Your task to perform on an android device: Go to sound settings Image 0: 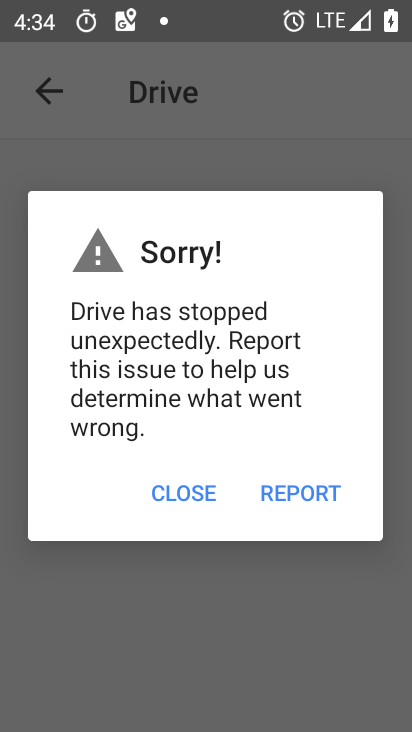
Step 0: click (184, 494)
Your task to perform on an android device: Go to sound settings Image 1: 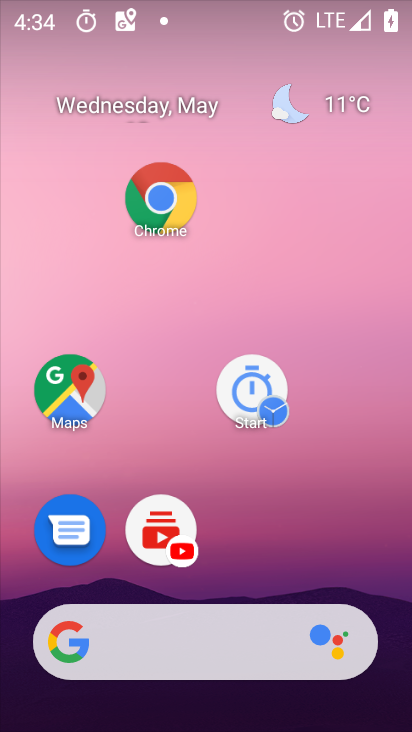
Step 1: drag from (267, 680) to (243, 274)
Your task to perform on an android device: Go to sound settings Image 2: 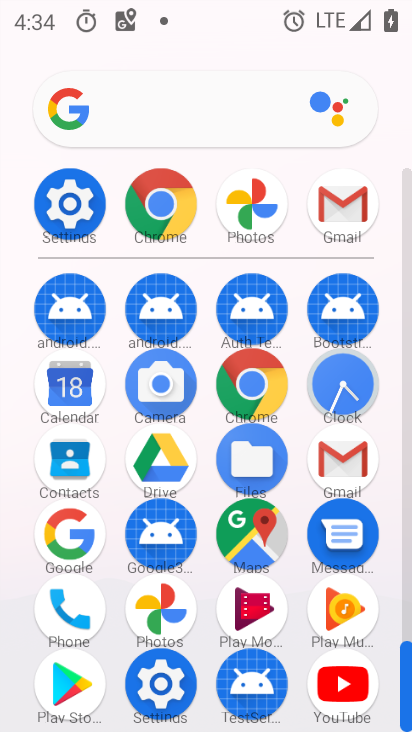
Step 2: click (73, 203)
Your task to perform on an android device: Go to sound settings Image 3: 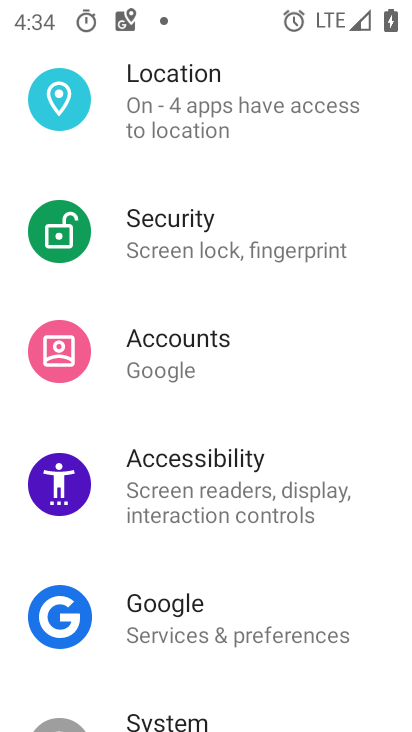
Step 3: drag from (202, 534) to (202, 152)
Your task to perform on an android device: Go to sound settings Image 4: 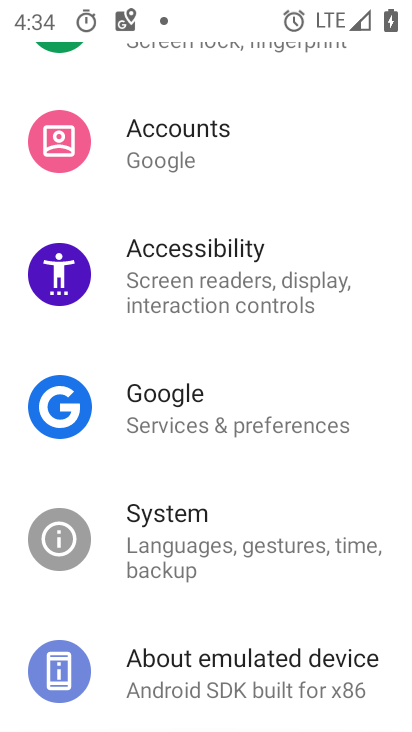
Step 4: drag from (227, 463) to (217, 123)
Your task to perform on an android device: Go to sound settings Image 5: 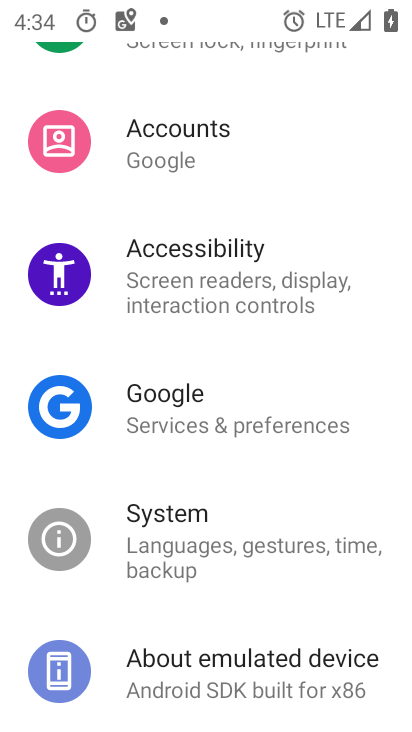
Step 5: drag from (216, 607) to (209, 368)
Your task to perform on an android device: Go to sound settings Image 6: 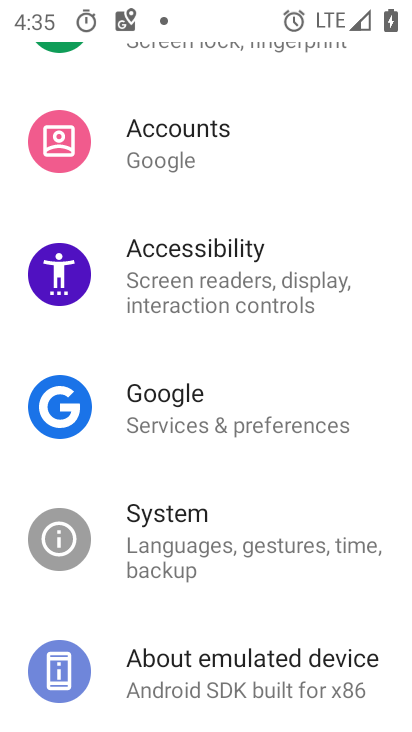
Step 6: drag from (202, 514) to (191, 263)
Your task to perform on an android device: Go to sound settings Image 7: 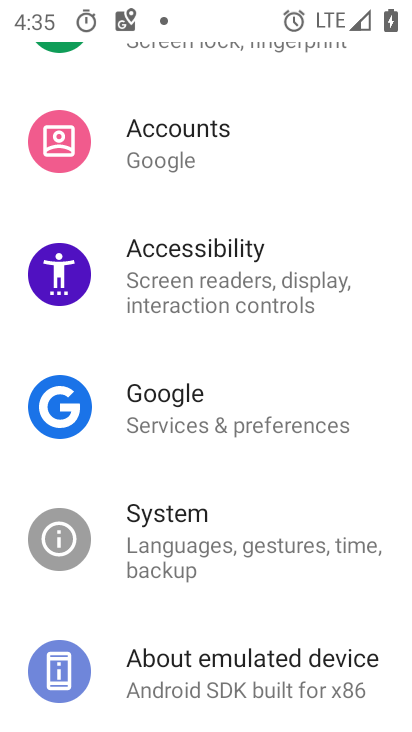
Step 7: drag from (216, 519) to (217, 293)
Your task to perform on an android device: Go to sound settings Image 8: 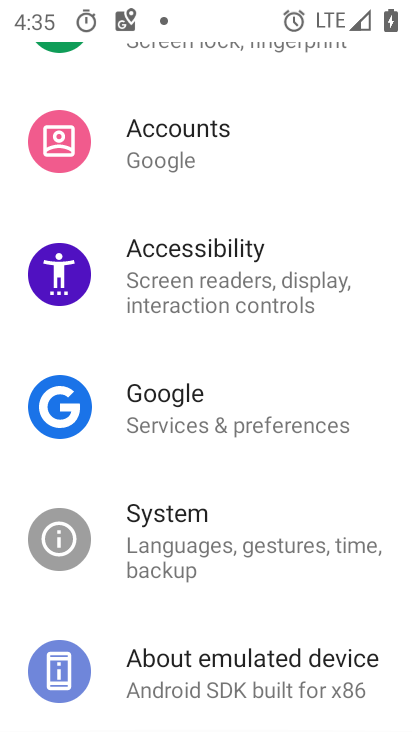
Step 8: drag from (199, 419) to (148, 87)
Your task to perform on an android device: Go to sound settings Image 9: 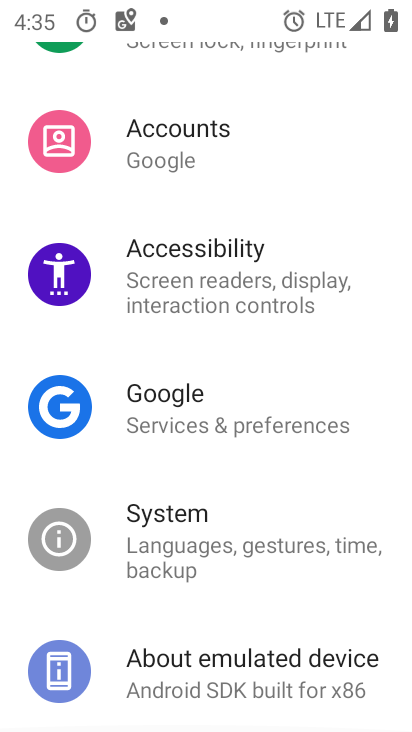
Step 9: drag from (182, 577) to (189, 132)
Your task to perform on an android device: Go to sound settings Image 10: 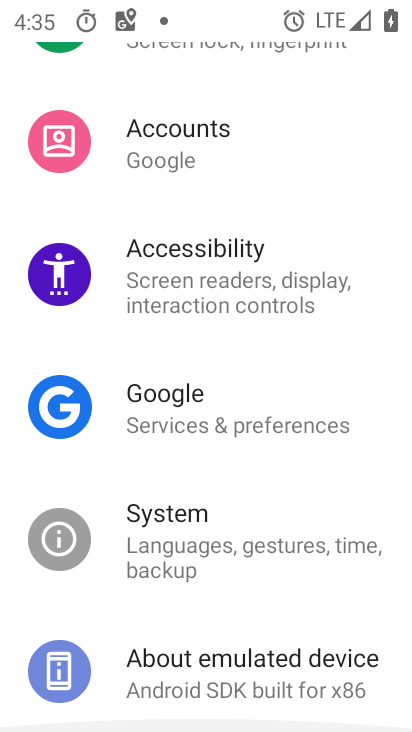
Step 10: drag from (204, 557) to (200, 190)
Your task to perform on an android device: Go to sound settings Image 11: 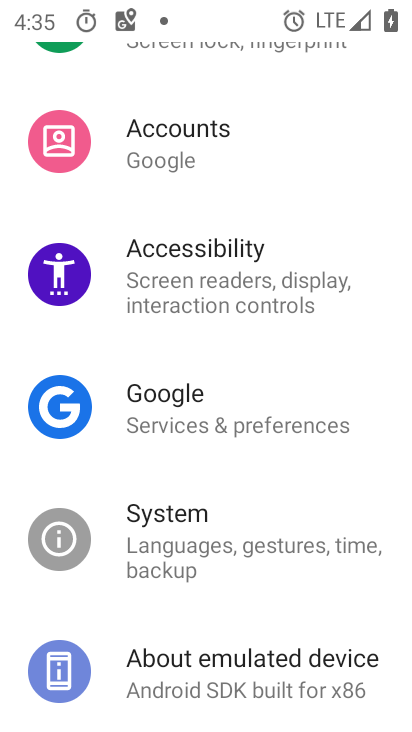
Step 11: drag from (154, 207) to (185, 683)
Your task to perform on an android device: Go to sound settings Image 12: 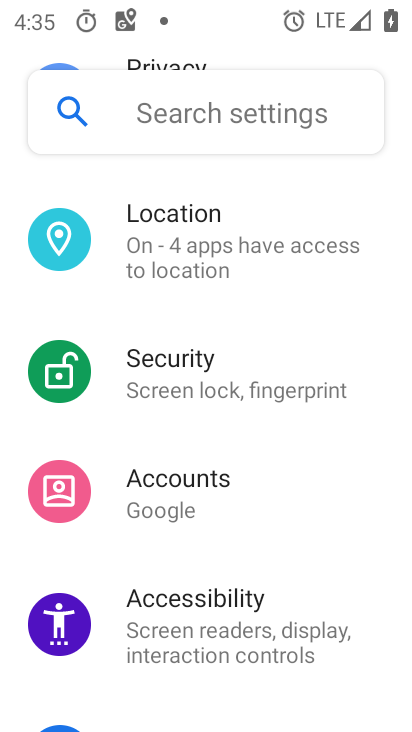
Step 12: drag from (150, 291) to (192, 645)
Your task to perform on an android device: Go to sound settings Image 13: 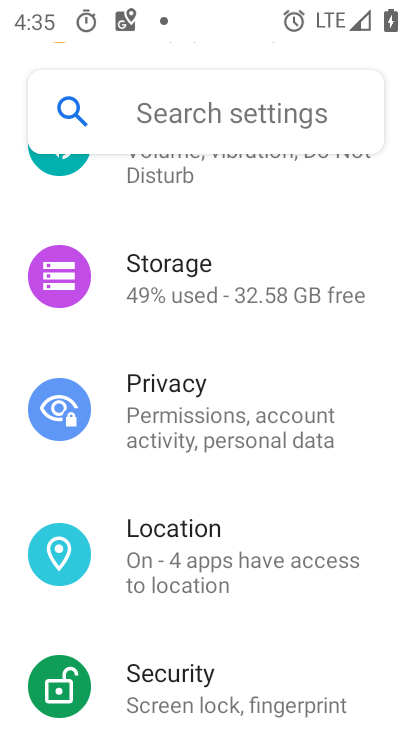
Step 13: drag from (233, 472) to (278, 658)
Your task to perform on an android device: Go to sound settings Image 14: 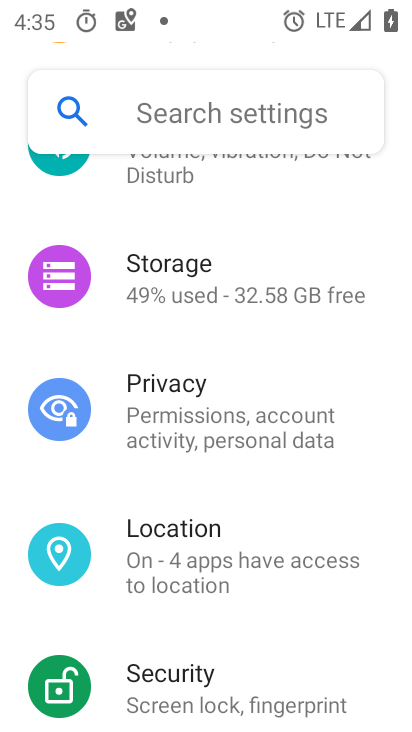
Step 14: drag from (180, 376) to (230, 719)
Your task to perform on an android device: Go to sound settings Image 15: 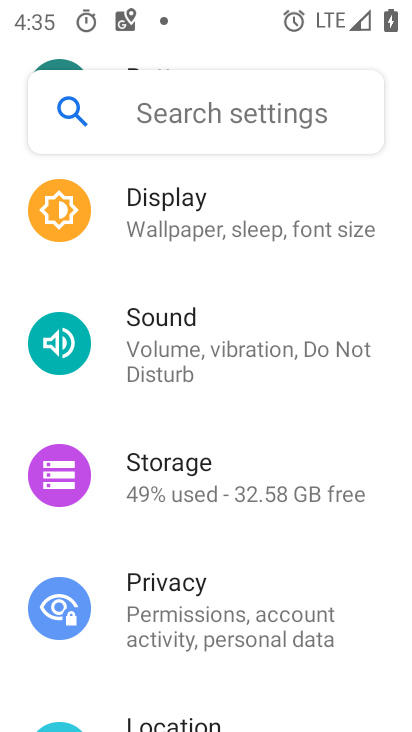
Step 15: click (156, 338)
Your task to perform on an android device: Go to sound settings Image 16: 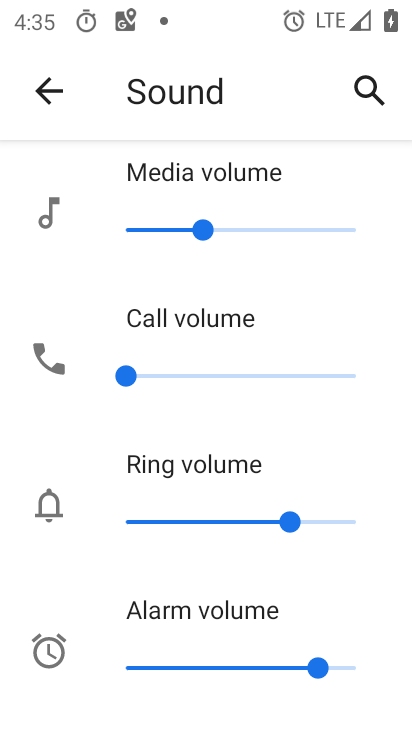
Step 16: task complete